Your task to perform on an android device: check battery use Image 0: 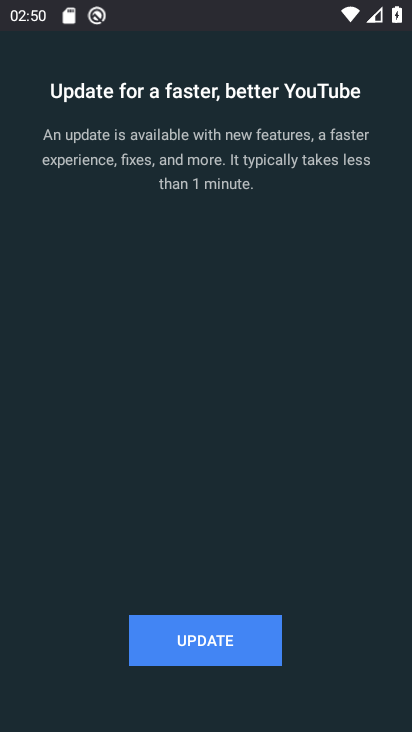
Step 0: press home button
Your task to perform on an android device: check battery use Image 1: 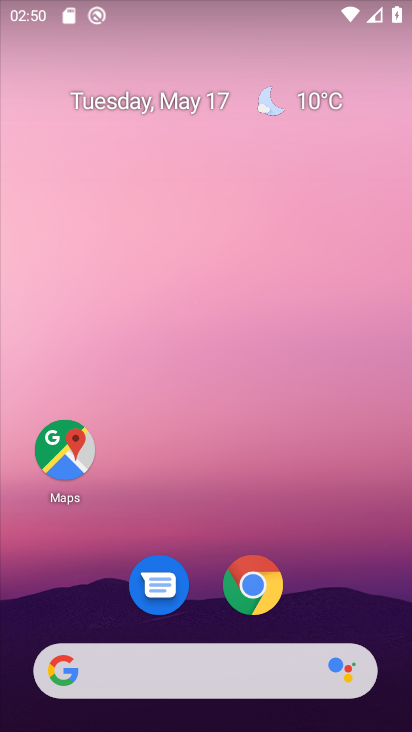
Step 1: drag from (182, 504) to (202, 42)
Your task to perform on an android device: check battery use Image 2: 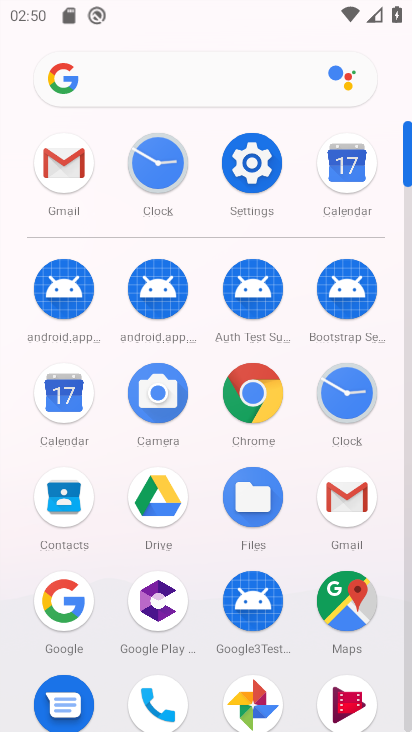
Step 2: click (245, 160)
Your task to perform on an android device: check battery use Image 3: 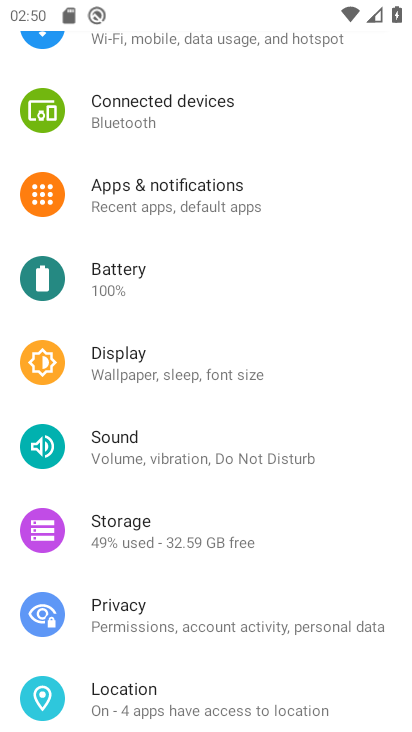
Step 3: click (191, 280)
Your task to perform on an android device: check battery use Image 4: 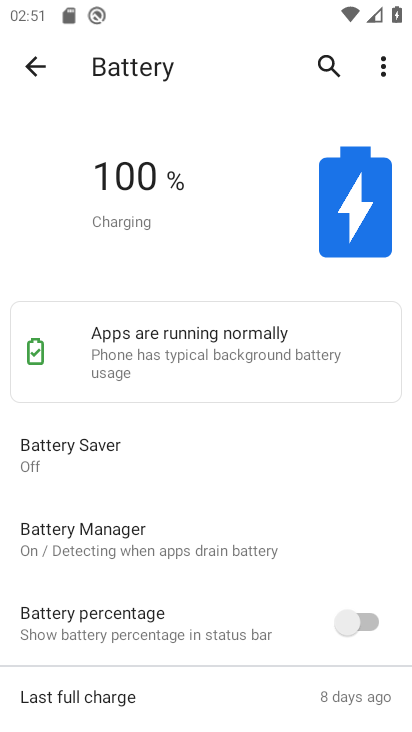
Step 4: task complete